Your task to perform on an android device: Open Youtube and go to the subscriptions tab Image 0: 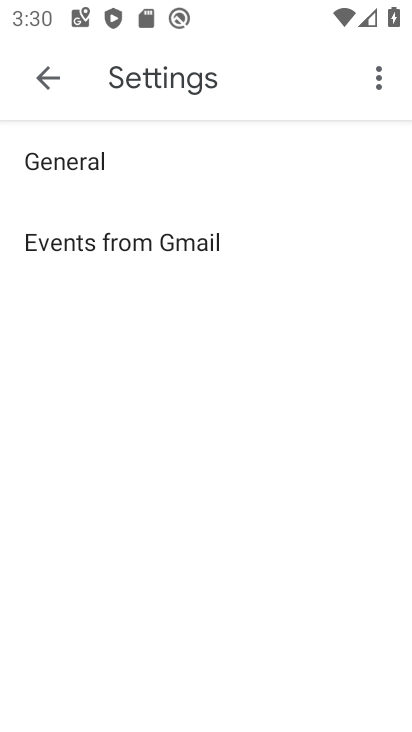
Step 0: press home button
Your task to perform on an android device: Open Youtube and go to the subscriptions tab Image 1: 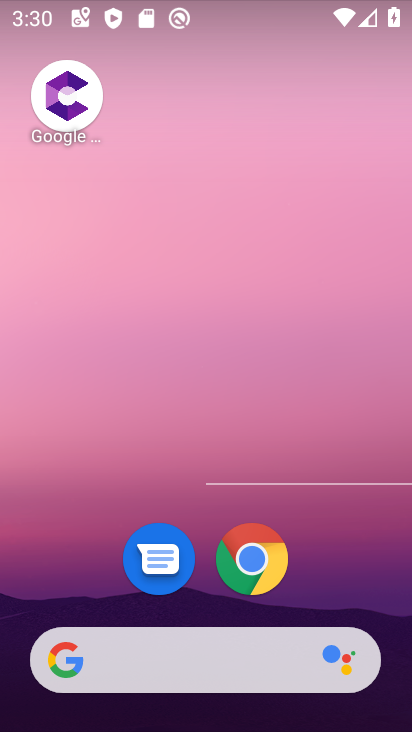
Step 1: drag from (262, 718) to (262, 85)
Your task to perform on an android device: Open Youtube and go to the subscriptions tab Image 2: 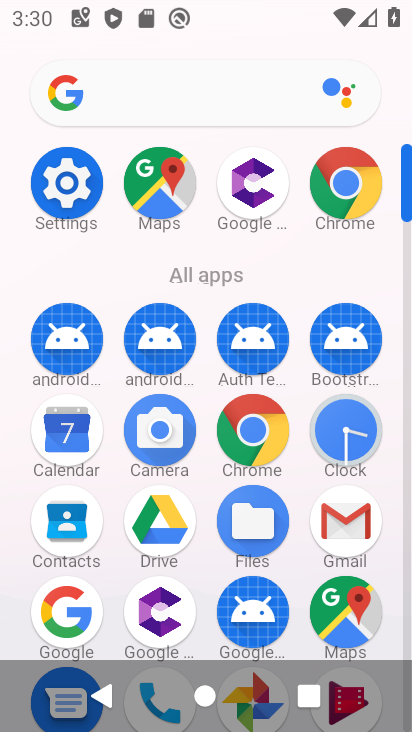
Step 2: drag from (302, 643) to (292, 266)
Your task to perform on an android device: Open Youtube and go to the subscriptions tab Image 3: 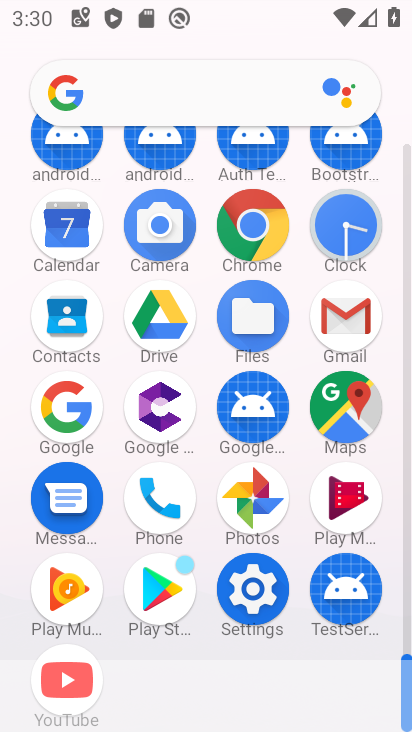
Step 3: click (65, 675)
Your task to perform on an android device: Open Youtube and go to the subscriptions tab Image 4: 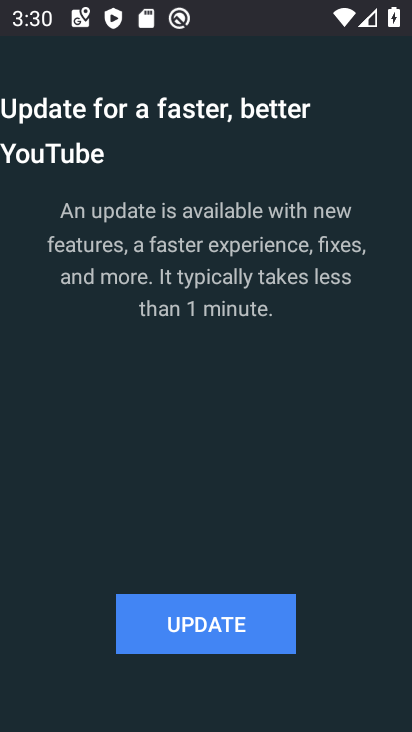
Step 4: task complete